Your task to perform on an android device: Open Maps and search for coffee Image 0: 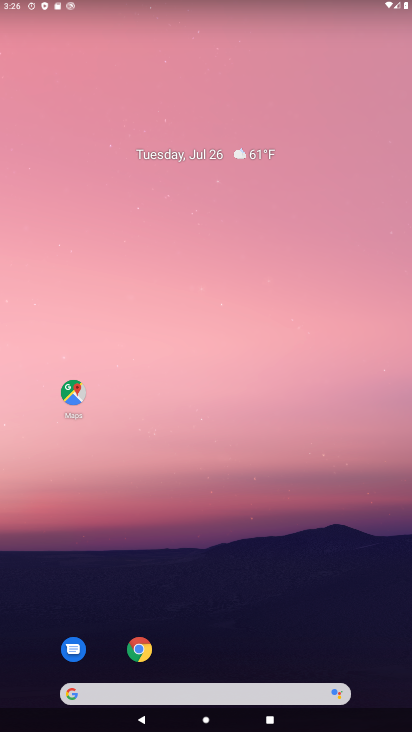
Step 0: click (128, 660)
Your task to perform on an android device: Open Maps and search for coffee Image 1: 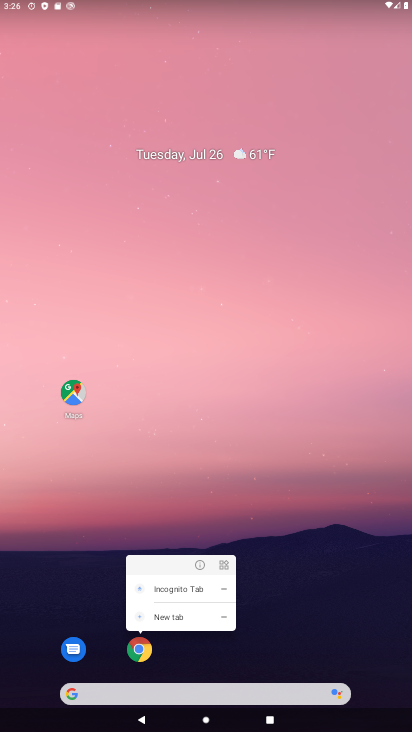
Step 1: click (137, 651)
Your task to perform on an android device: Open Maps and search for coffee Image 2: 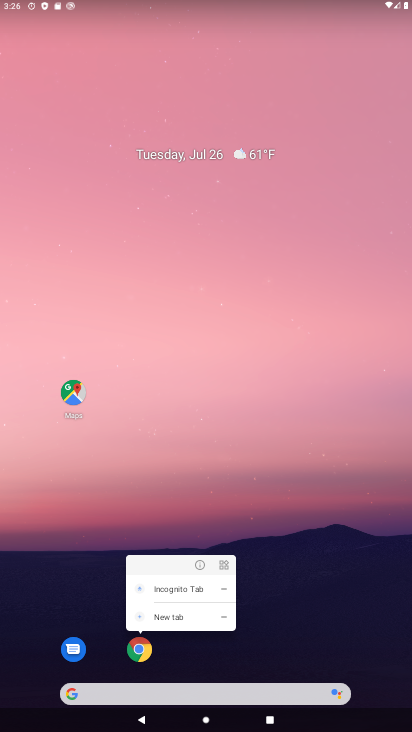
Step 2: click (139, 650)
Your task to perform on an android device: Open Maps and search for coffee Image 3: 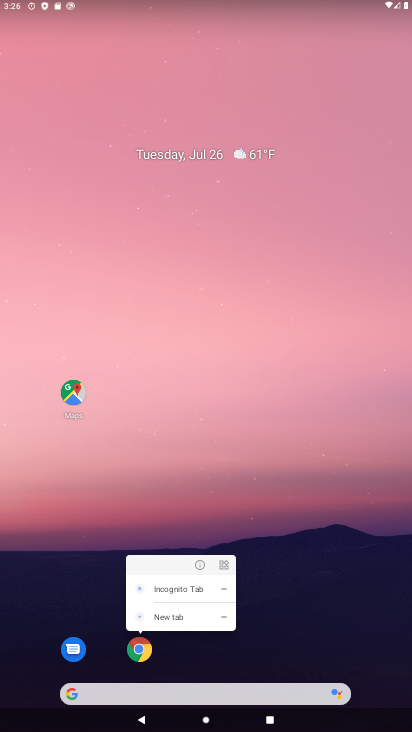
Step 3: click (139, 650)
Your task to perform on an android device: Open Maps and search for coffee Image 4: 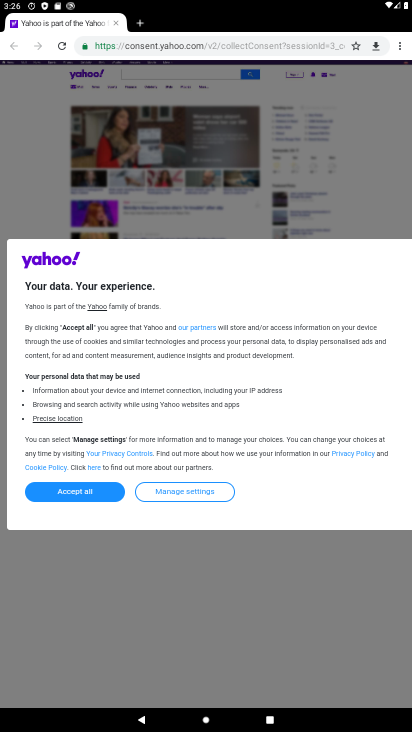
Step 4: press home button
Your task to perform on an android device: Open Maps and search for coffee Image 5: 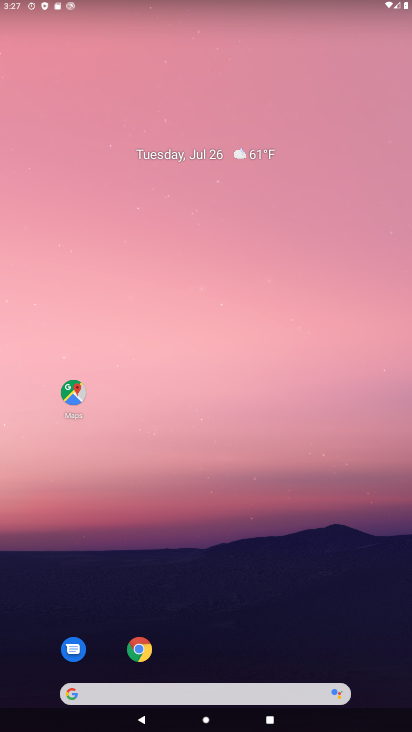
Step 5: click (69, 390)
Your task to perform on an android device: Open Maps and search for coffee Image 6: 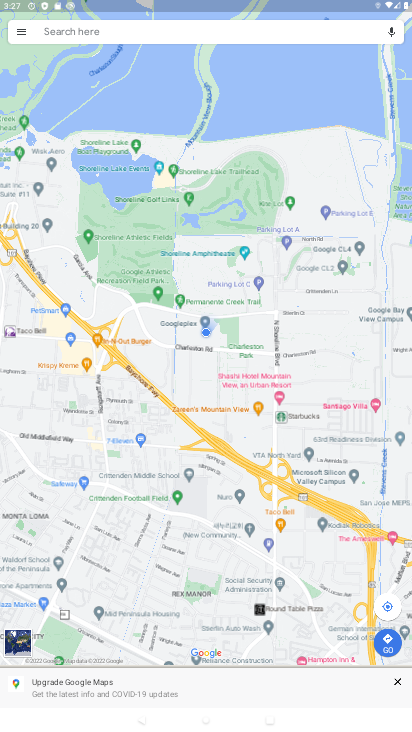
Step 6: click (55, 20)
Your task to perform on an android device: Open Maps and search for coffee Image 7: 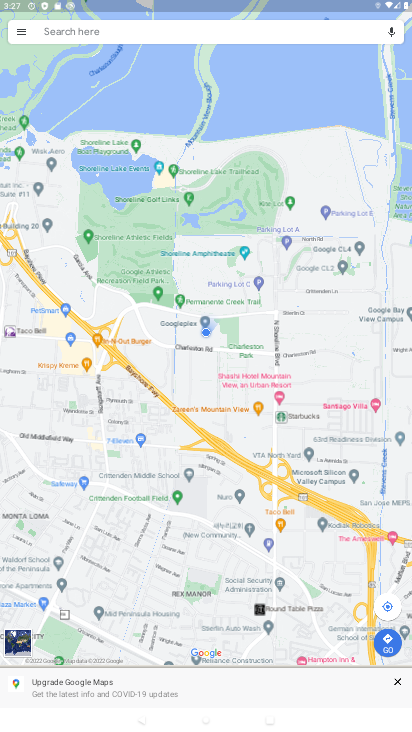
Step 7: click (51, 27)
Your task to perform on an android device: Open Maps and search for coffee Image 8: 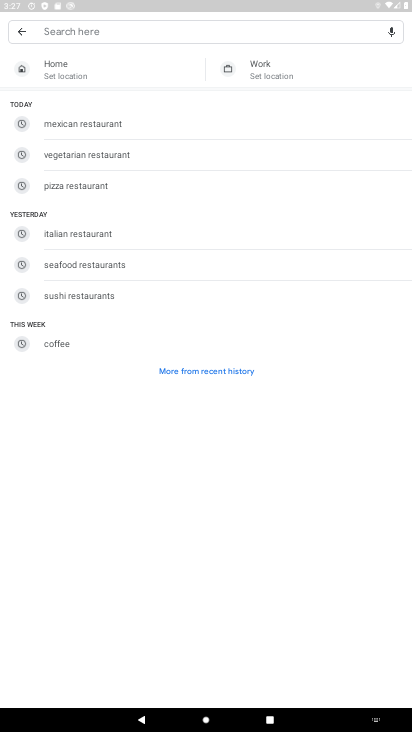
Step 8: click (47, 343)
Your task to perform on an android device: Open Maps and search for coffee Image 9: 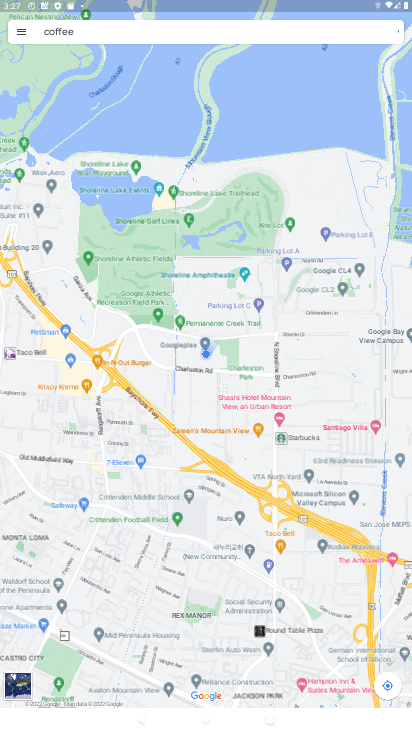
Step 9: task complete